Your task to perform on an android device: open the mobile data screen to see how much data has been used Image 0: 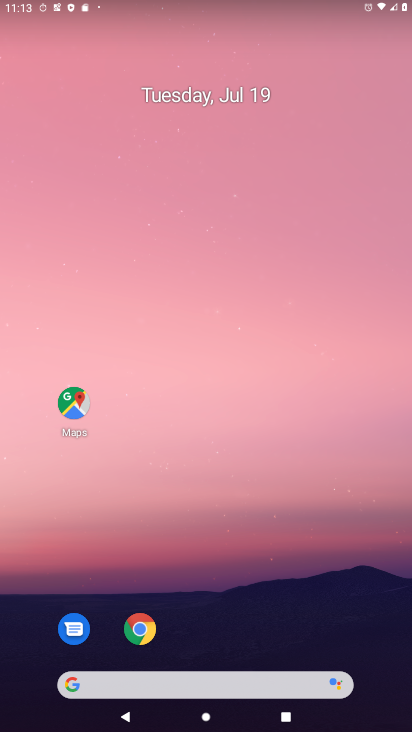
Step 0: drag from (317, 587) to (244, 124)
Your task to perform on an android device: open the mobile data screen to see how much data has been used Image 1: 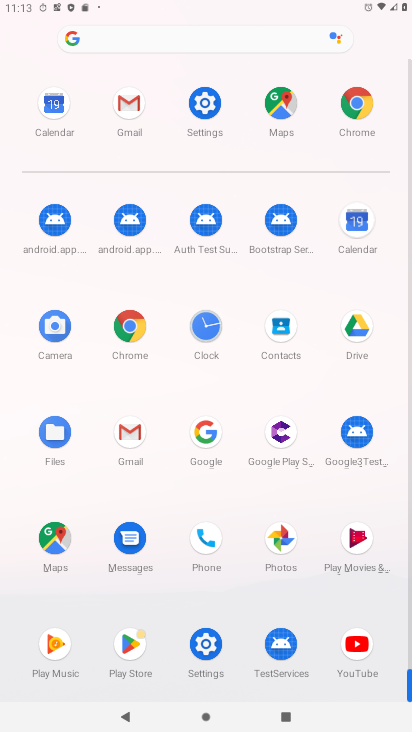
Step 1: click (207, 107)
Your task to perform on an android device: open the mobile data screen to see how much data has been used Image 2: 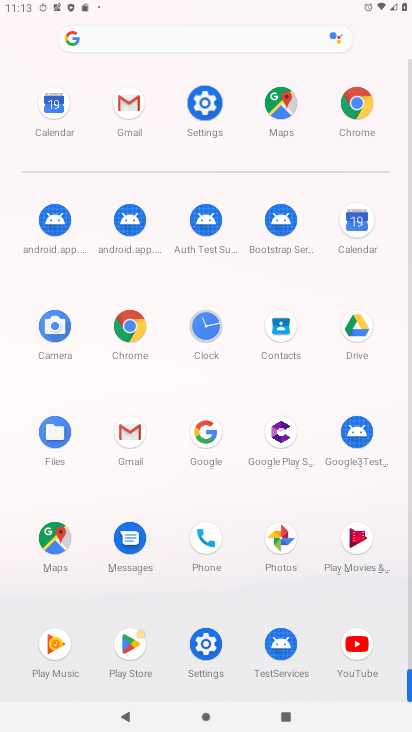
Step 2: click (208, 108)
Your task to perform on an android device: open the mobile data screen to see how much data has been used Image 3: 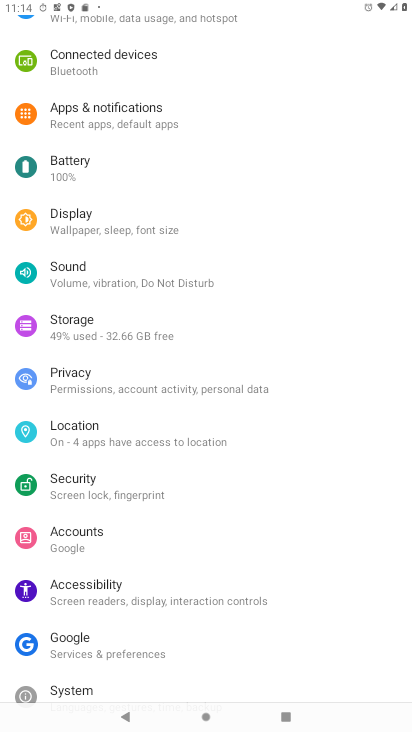
Step 3: drag from (102, 113) to (146, 494)
Your task to perform on an android device: open the mobile data screen to see how much data has been used Image 4: 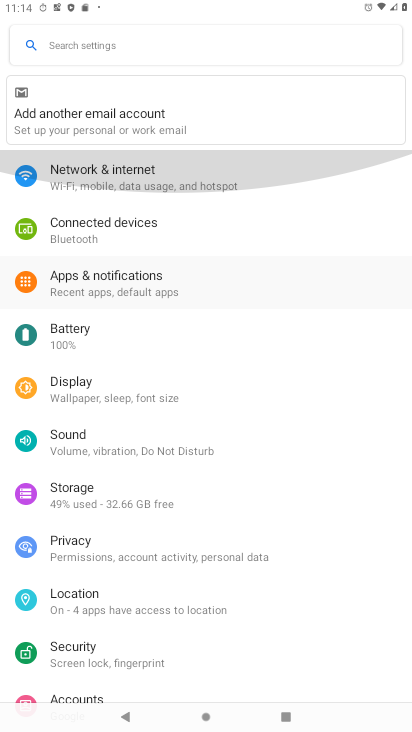
Step 4: drag from (108, 196) to (153, 478)
Your task to perform on an android device: open the mobile data screen to see how much data has been used Image 5: 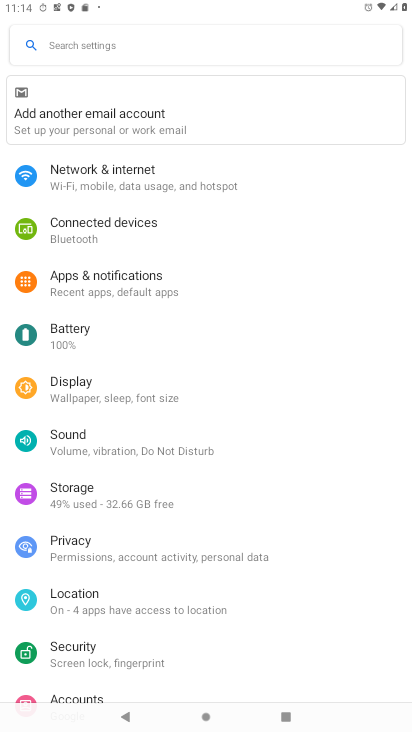
Step 5: click (81, 176)
Your task to perform on an android device: open the mobile data screen to see how much data has been used Image 6: 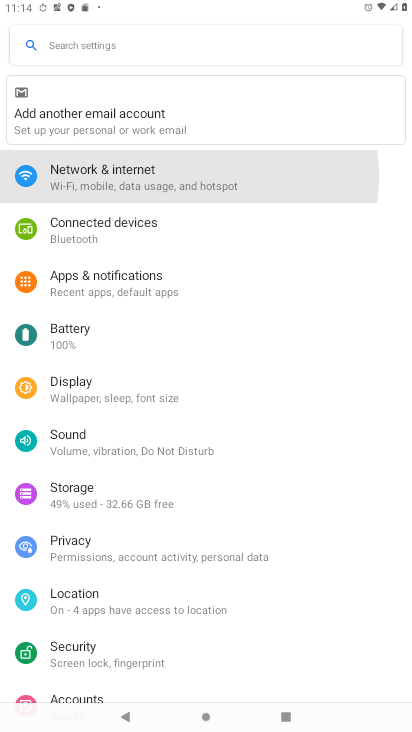
Step 6: click (88, 177)
Your task to perform on an android device: open the mobile data screen to see how much data has been used Image 7: 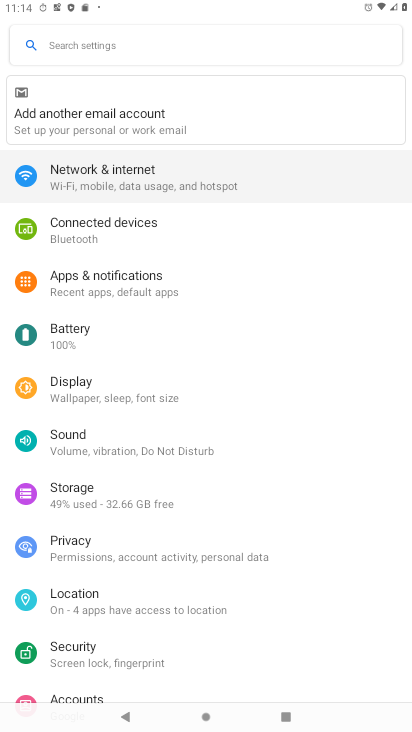
Step 7: click (94, 177)
Your task to perform on an android device: open the mobile data screen to see how much data has been used Image 8: 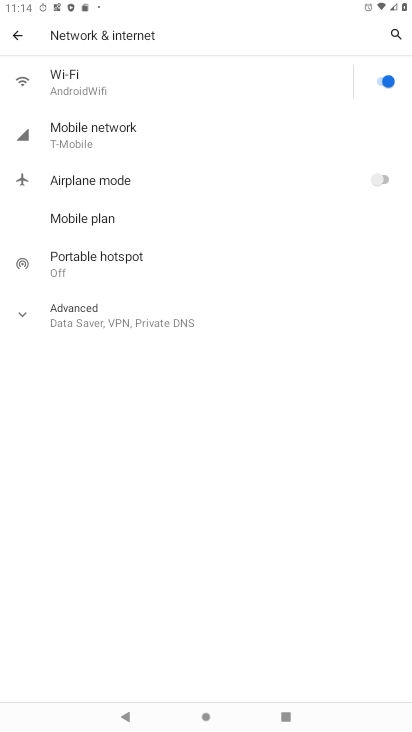
Step 8: click (57, 129)
Your task to perform on an android device: open the mobile data screen to see how much data has been used Image 9: 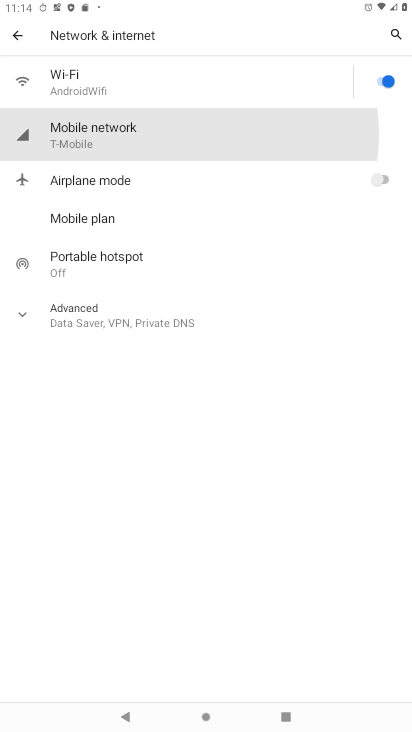
Step 9: click (63, 133)
Your task to perform on an android device: open the mobile data screen to see how much data has been used Image 10: 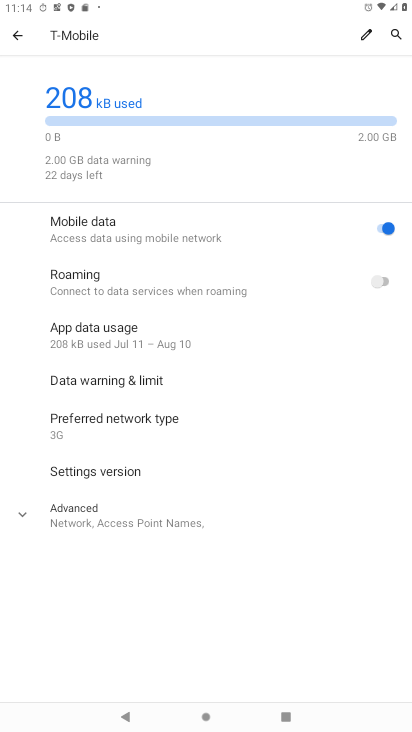
Step 10: task complete